Your task to perform on an android device: Show me the best rated power washer on Home Depot. Image 0: 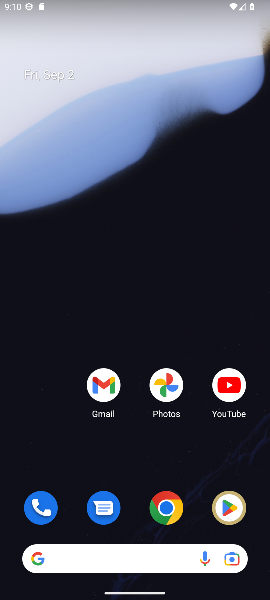
Step 0: drag from (200, 448) to (164, 0)
Your task to perform on an android device: Show me the best rated power washer on Home Depot. Image 1: 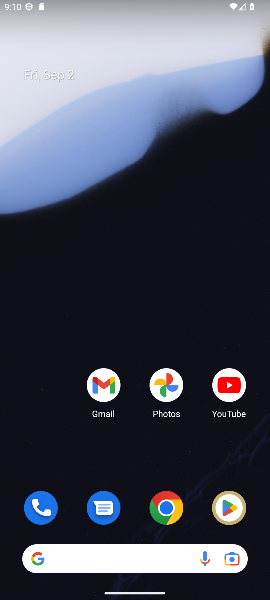
Step 1: drag from (204, 444) to (162, 13)
Your task to perform on an android device: Show me the best rated power washer on Home Depot. Image 2: 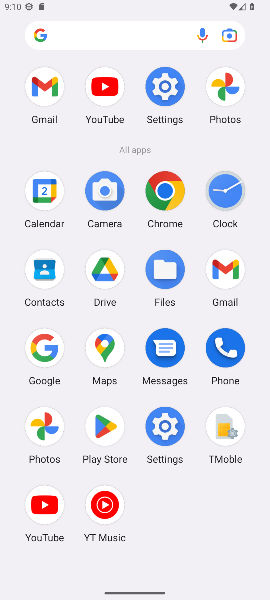
Step 2: click (169, 191)
Your task to perform on an android device: Show me the best rated power washer on Home Depot. Image 3: 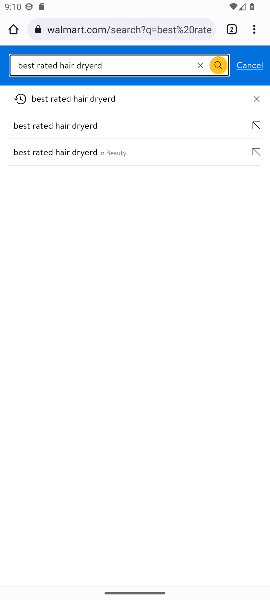
Step 3: click (103, 26)
Your task to perform on an android device: Show me the best rated power washer on Home Depot. Image 4: 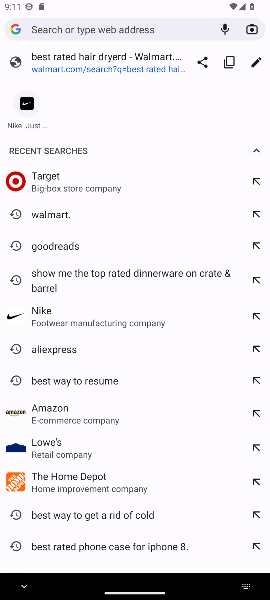
Step 4: type "Home Depot"
Your task to perform on an android device: Show me the best rated power washer on Home Depot. Image 5: 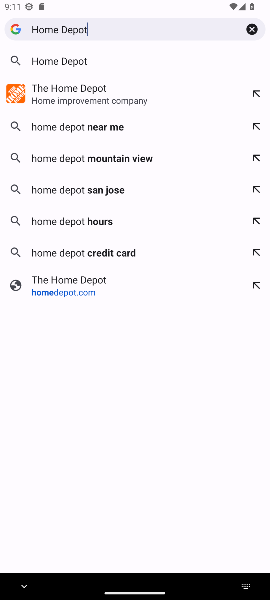
Step 5: click (69, 60)
Your task to perform on an android device: Show me the best rated power washer on Home Depot. Image 6: 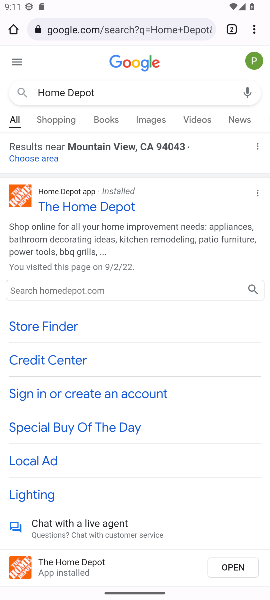
Step 6: click (104, 208)
Your task to perform on an android device: Show me the best rated power washer on Home Depot. Image 7: 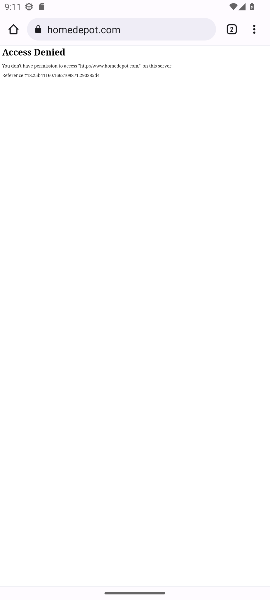
Step 7: task complete